Your task to perform on an android device: turn on the 12-hour format for clock Image 0: 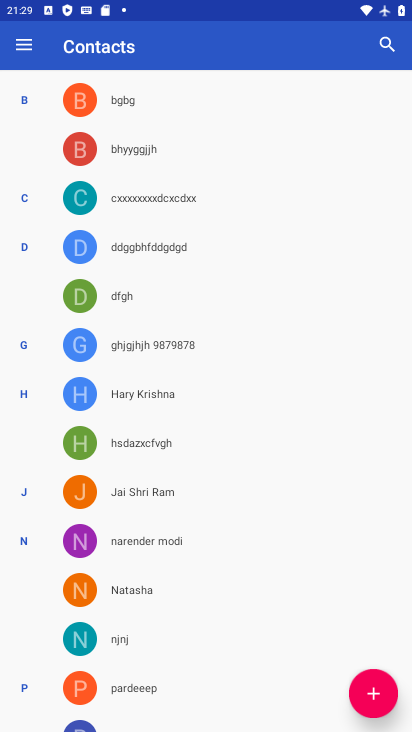
Step 0: press home button
Your task to perform on an android device: turn on the 12-hour format for clock Image 1: 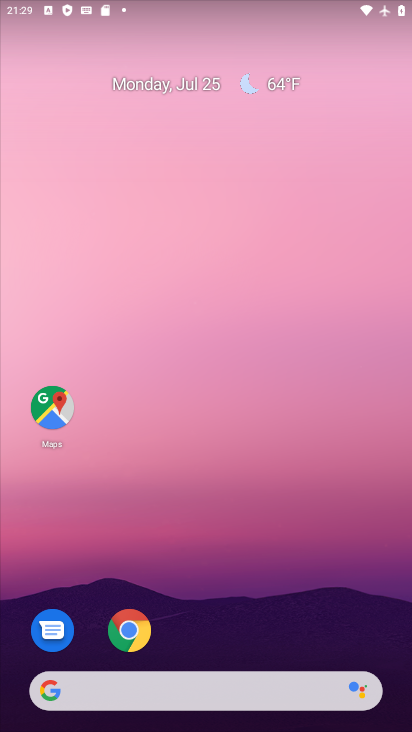
Step 1: drag from (380, 635) to (319, 78)
Your task to perform on an android device: turn on the 12-hour format for clock Image 2: 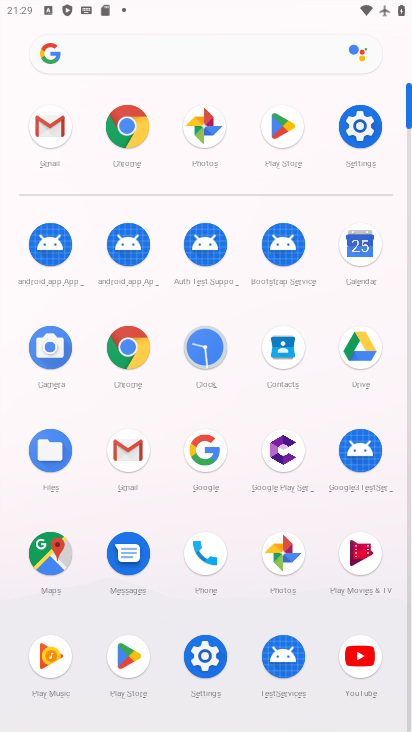
Step 2: click (207, 348)
Your task to perform on an android device: turn on the 12-hour format for clock Image 3: 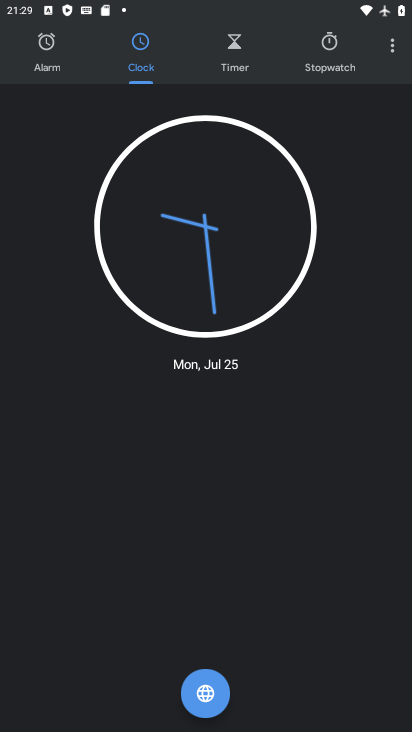
Step 3: click (391, 55)
Your task to perform on an android device: turn on the 12-hour format for clock Image 4: 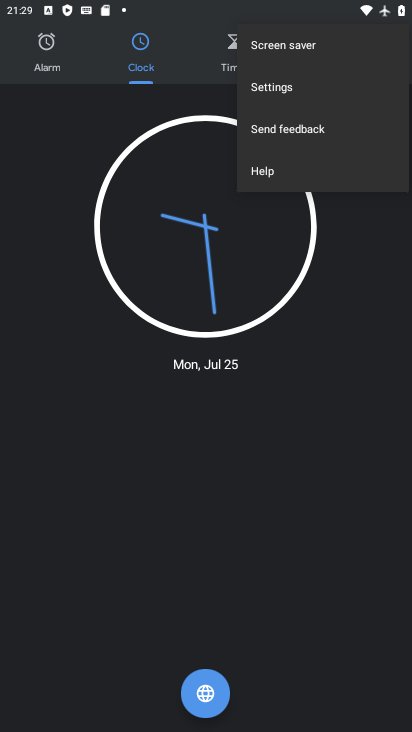
Step 4: click (273, 88)
Your task to perform on an android device: turn on the 12-hour format for clock Image 5: 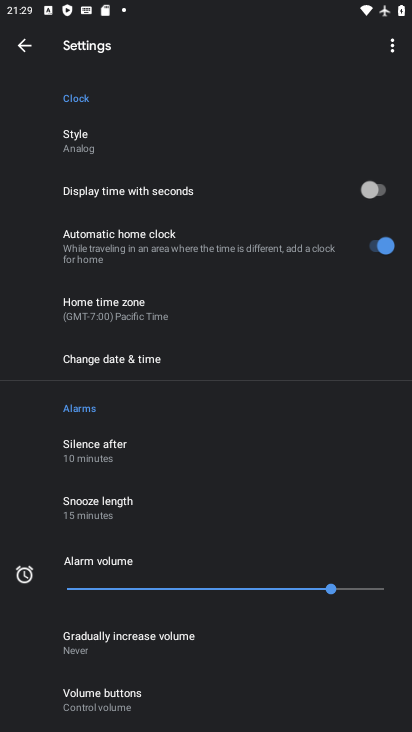
Step 5: click (135, 354)
Your task to perform on an android device: turn on the 12-hour format for clock Image 6: 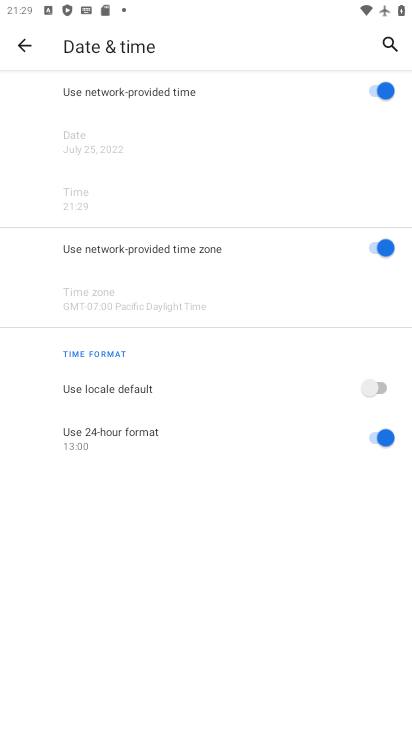
Step 6: click (381, 390)
Your task to perform on an android device: turn on the 12-hour format for clock Image 7: 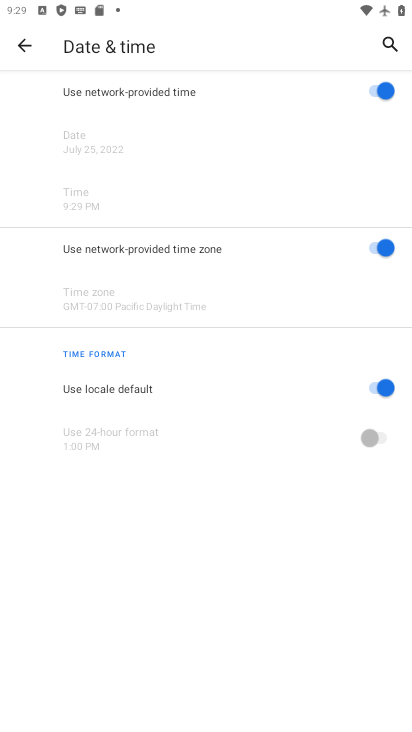
Step 7: task complete